Your task to perform on an android device: Open Chrome and go to settings Image 0: 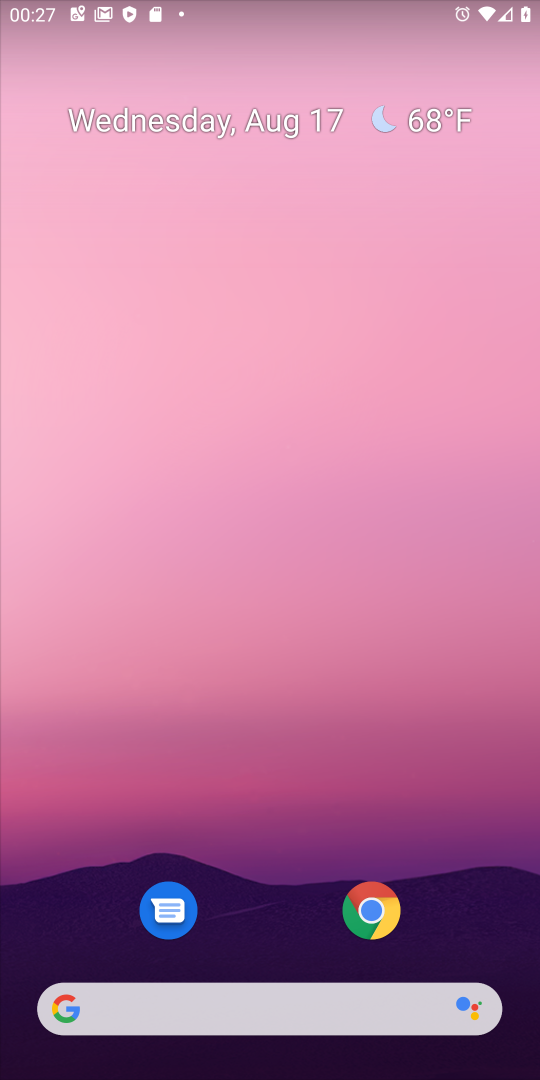
Step 0: drag from (296, 897) to (371, 0)
Your task to perform on an android device: Open Chrome and go to settings Image 1: 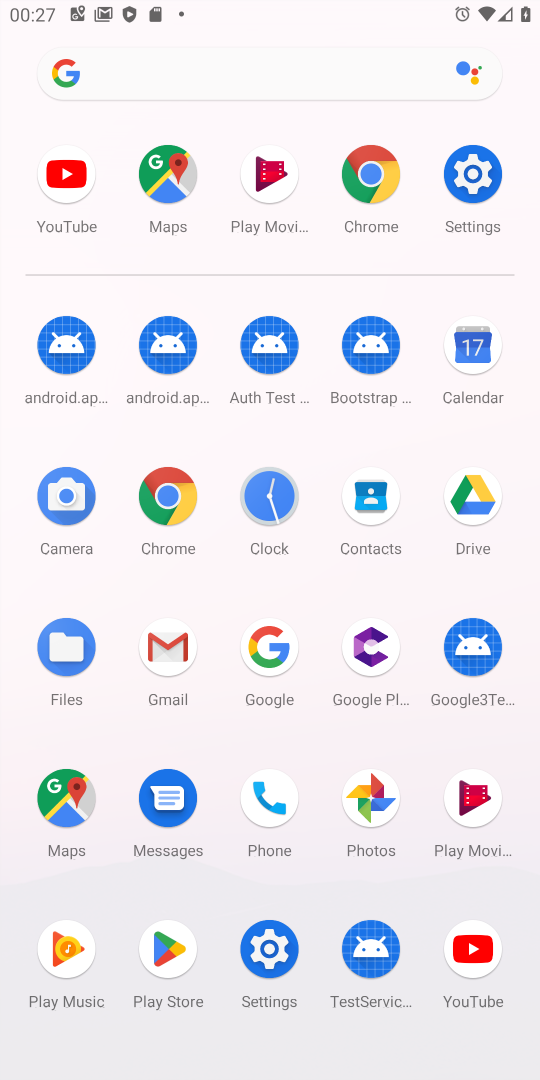
Step 1: click (157, 494)
Your task to perform on an android device: Open Chrome and go to settings Image 2: 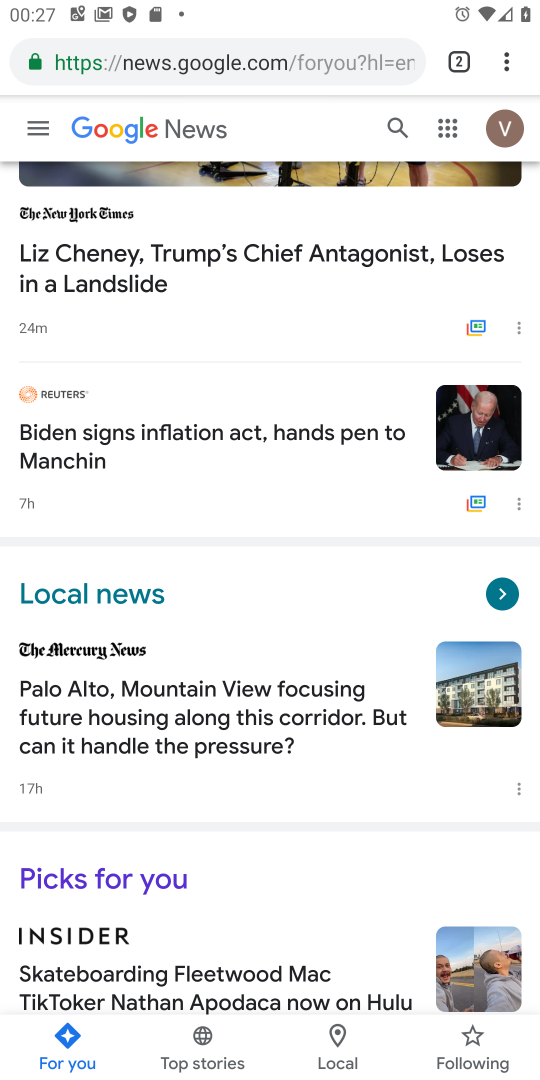
Step 2: task complete